Your task to perform on an android device: What's US dollar exchange rate against the British Pound? Image 0: 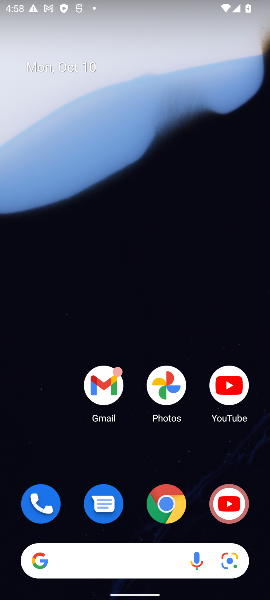
Step 0: drag from (87, 508) to (150, 110)
Your task to perform on an android device: What's US dollar exchange rate against the British Pound? Image 1: 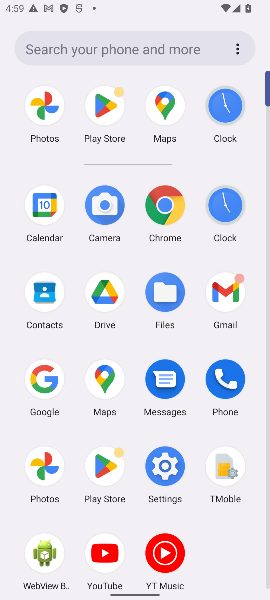
Step 1: click (150, 211)
Your task to perform on an android device: What's US dollar exchange rate against the British Pound? Image 2: 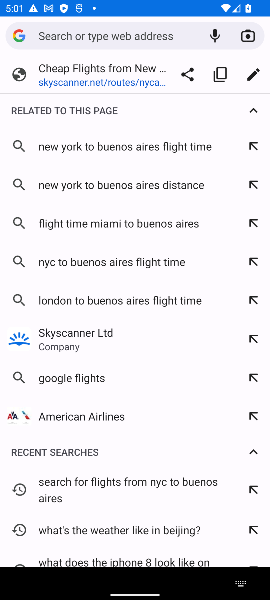
Step 2: type "What's US dollar exchange rate against the British Pound?"
Your task to perform on an android device: What's US dollar exchange rate against the British Pound? Image 3: 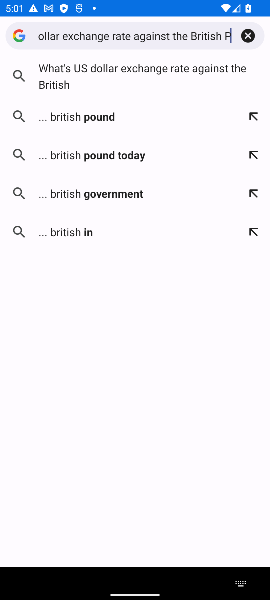
Step 3: press enter
Your task to perform on an android device: What's US dollar exchange rate against the British Pound? Image 4: 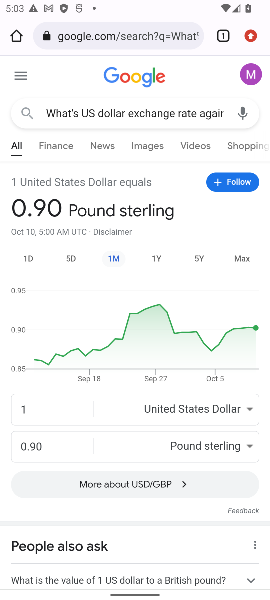
Step 4: task complete